Your task to perform on an android device: Clear the shopping cart on newegg. Add "usb-a to usb-b" to the cart on newegg, then select checkout. Image 0: 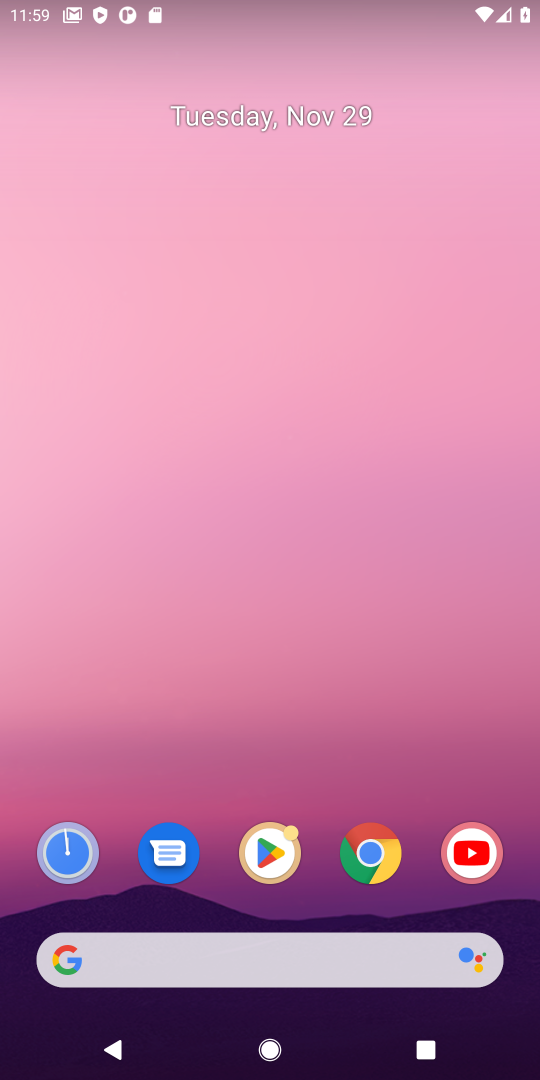
Step 0: click (377, 857)
Your task to perform on an android device: Clear the shopping cart on newegg. Add "usb-a to usb-b" to the cart on newegg, then select checkout. Image 1: 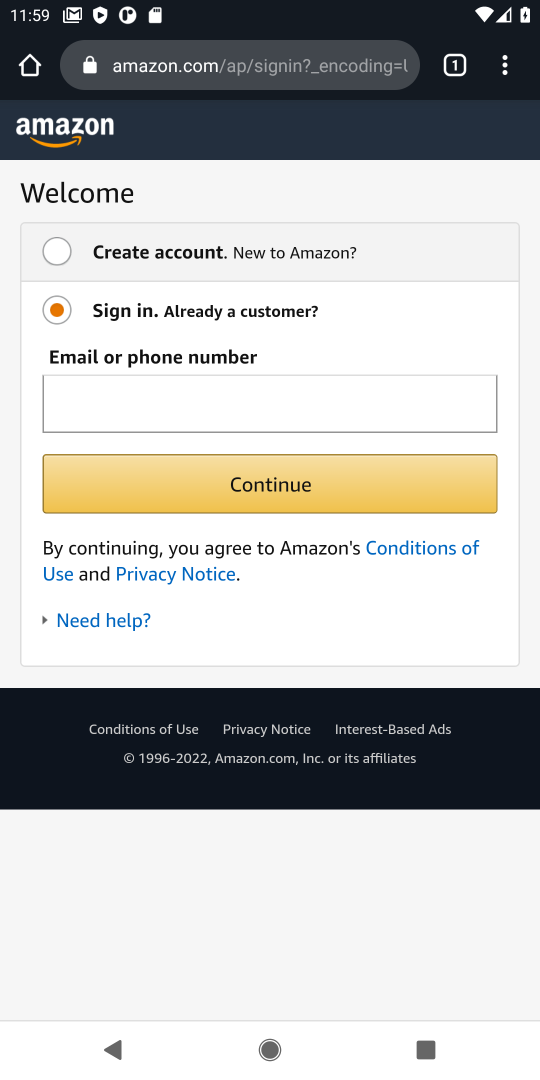
Step 1: click (237, 78)
Your task to perform on an android device: Clear the shopping cart on newegg. Add "usb-a to usb-b" to the cart on newegg, then select checkout. Image 2: 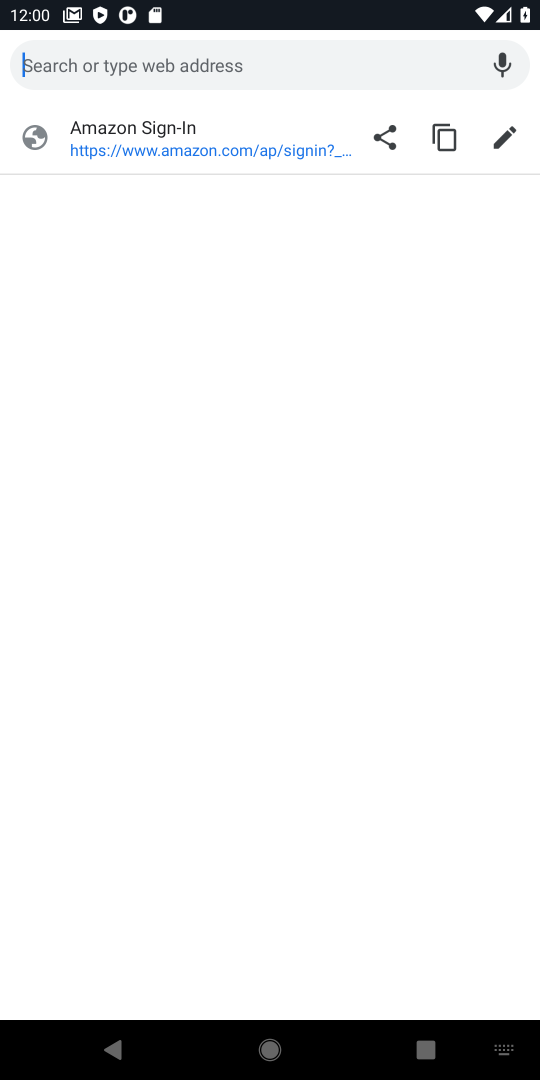
Step 2: click (116, 59)
Your task to perform on an android device: Clear the shopping cart on newegg. Add "usb-a to usb-b" to the cart on newegg, then select checkout. Image 3: 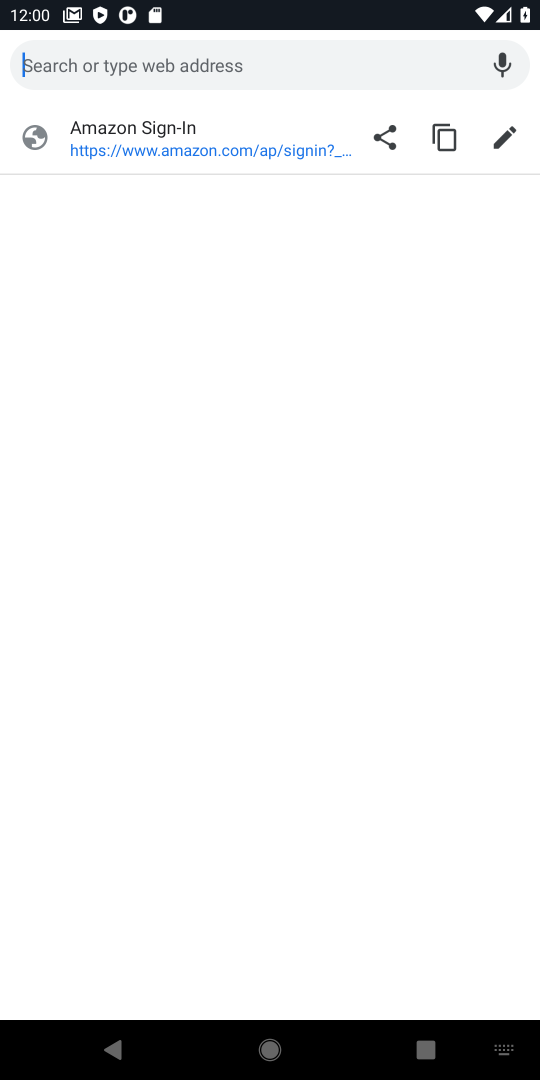
Step 3: click (145, 71)
Your task to perform on an android device: Clear the shopping cart on newegg. Add "usb-a to usb-b" to the cart on newegg, then select checkout. Image 4: 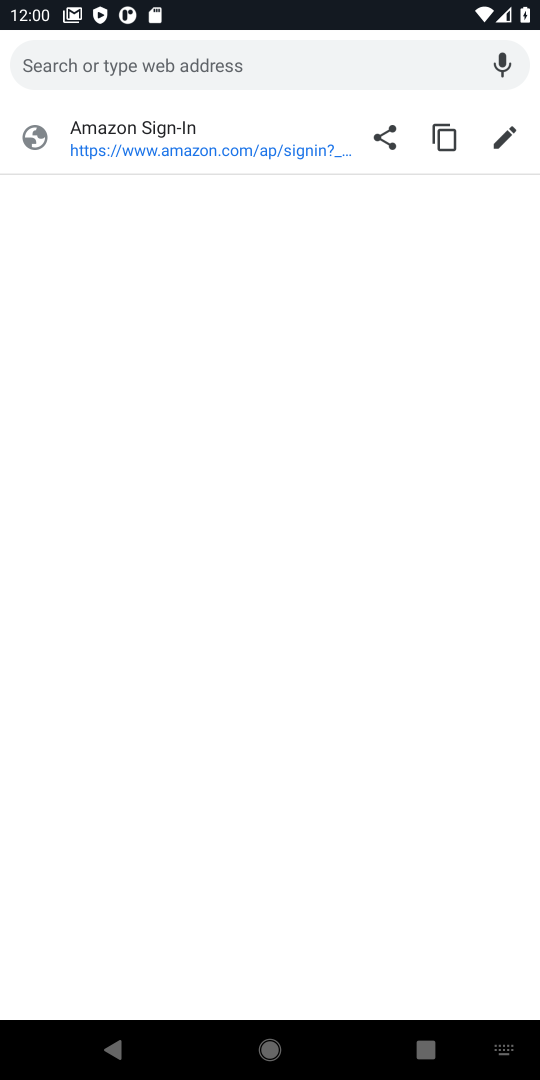
Step 4: type "newegg.com"
Your task to perform on an android device: Clear the shopping cart on newegg. Add "usb-a to usb-b" to the cart on newegg, then select checkout. Image 5: 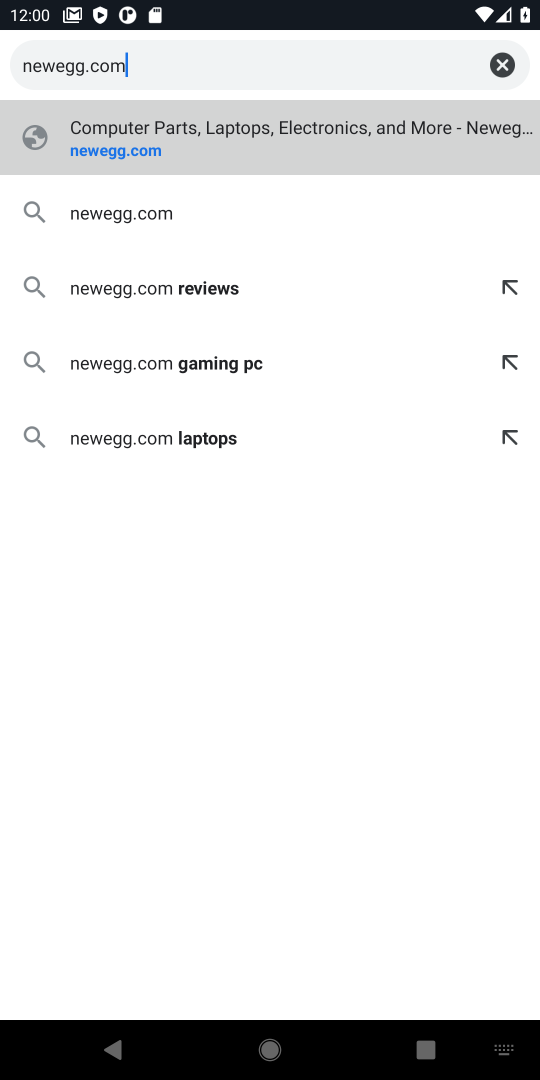
Step 5: click (102, 154)
Your task to perform on an android device: Clear the shopping cart on newegg. Add "usb-a to usb-b" to the cart on newegg, then select checkout. Image 6: 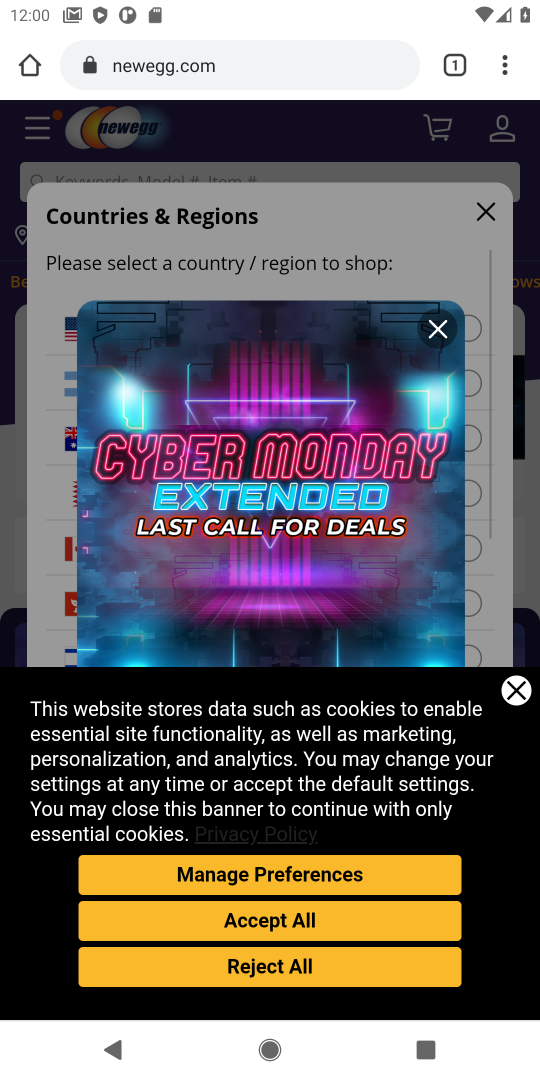
Step 6: click (515, 686)
Your task to perform on an android device: Clear the shopping cart on newegg. Add "usb-a to usb-b" to the cart on newegg, then select checkout. Image 7: 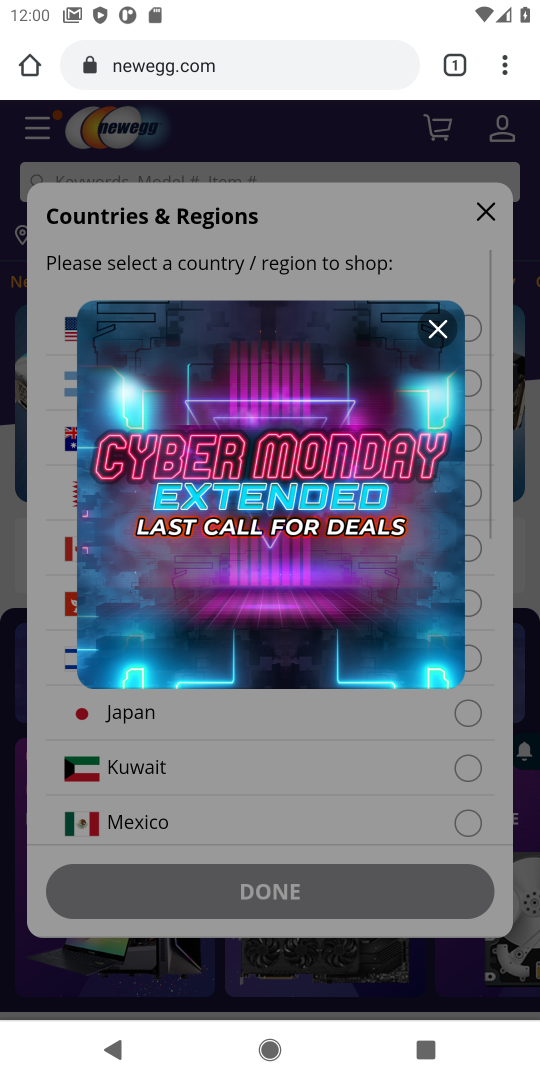
Step 7: click (441, 330)
Your task to perform on an android device: Clear the shopping cart on newegg. Add "usb-a to usb-b" to the cart on newegg, then select checkout. Image 8: 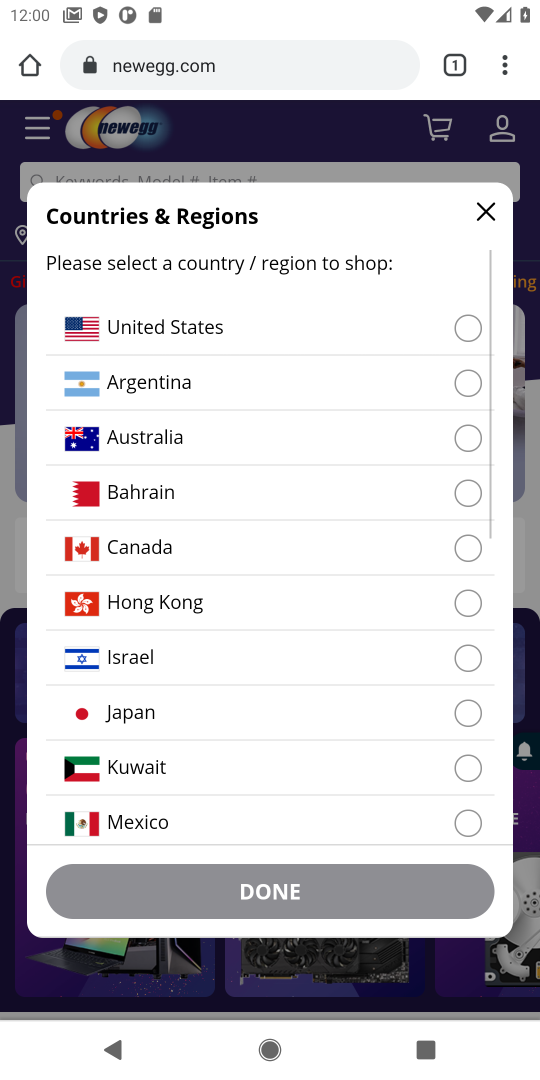
Step 8: click (205, 335)
Your task to perform on an android device: Clear the shopping cart on newegg. Add "usb-a to usb-b" to the cart on newegg, then select checkout. Image 9: 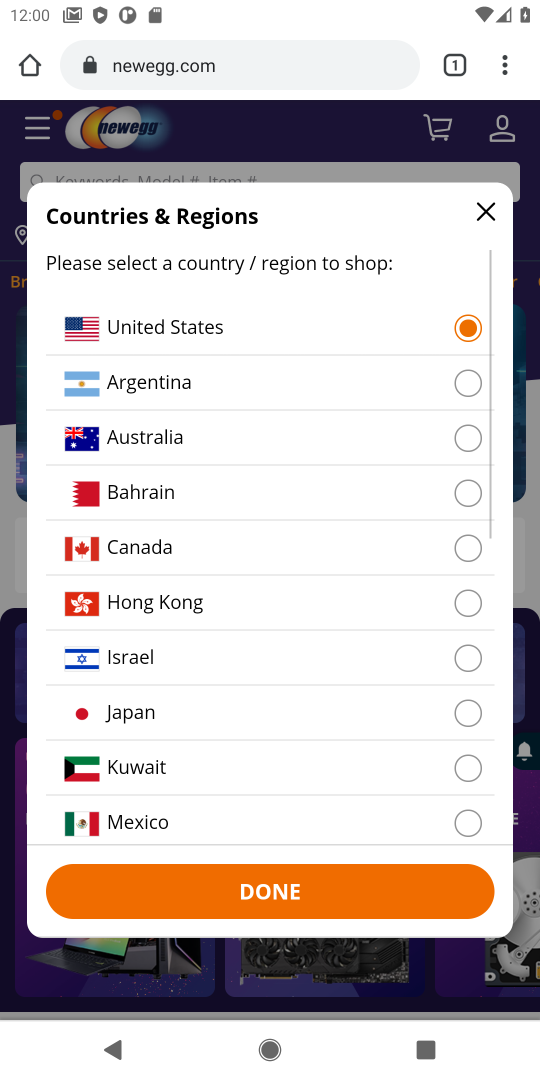
Step 9: click (254, 882)
Your task to perform on an android device: Clear the shopping cart on newegg. Add "usb-a to usb-b" to the cart on newegg, then select checkout. Image 10: 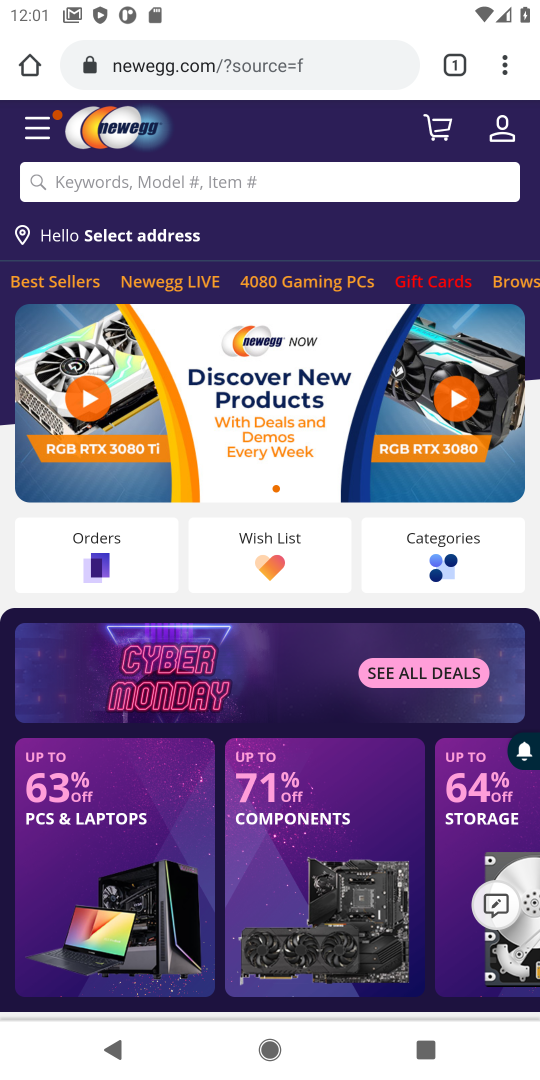
Step 10: click (441, 128)
Your task to perform on an android device: Clear the shopping cart on newegg. Add "usb-a to usb-b" to the cart on newegg, then select checkout. Image 11: 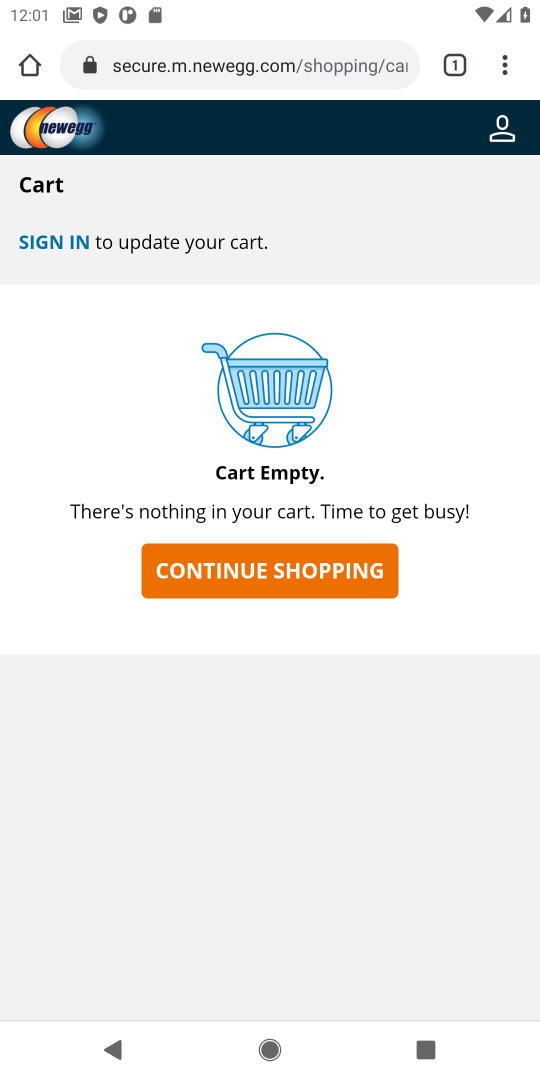
Step 11: click (227, 574)
Your task to perform on an android device: Clear the shopping cart on newegg. Add "usb-a to usb-b" to the cart on newegg, then select checkout. Image 12: 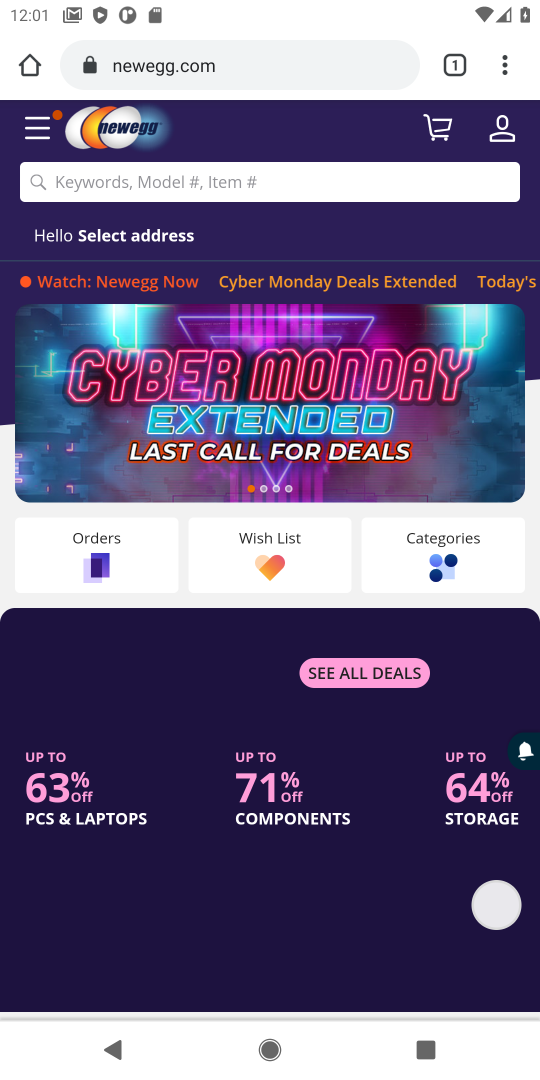
Step 12: click (173, 181)
Your task to perform on an android device: Clear the shopping cart on newegg. Add "usb-a to usb-b" to the cart on newegg, then select checkout. Image 13: 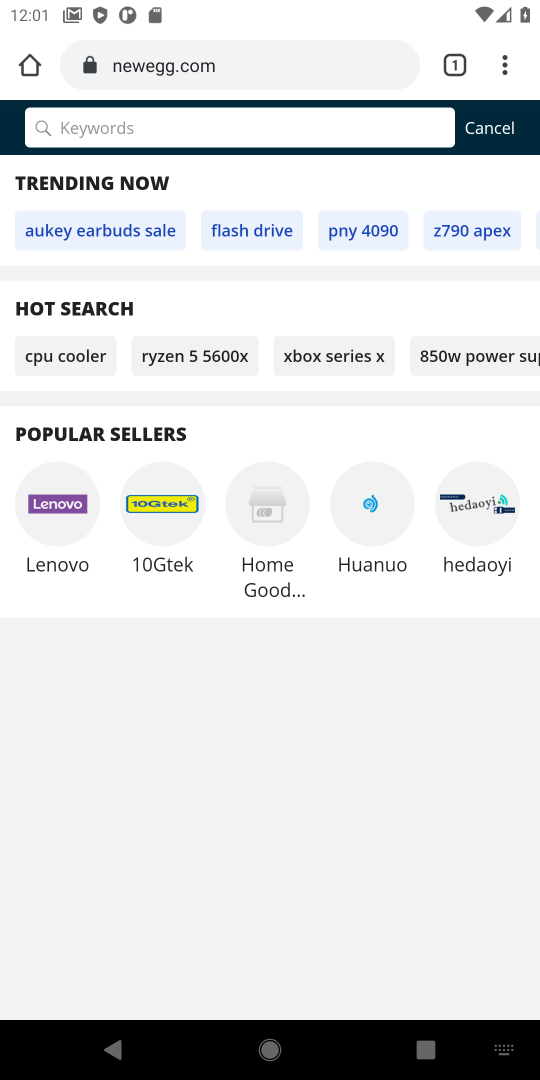
Step 13: type "usb-a to usb-b"
Your task to perform on an android device: Clear the shopping cart on newegg. Add "usb-a to usb-b" to the cart on newegg, then select checkout. Image 14: 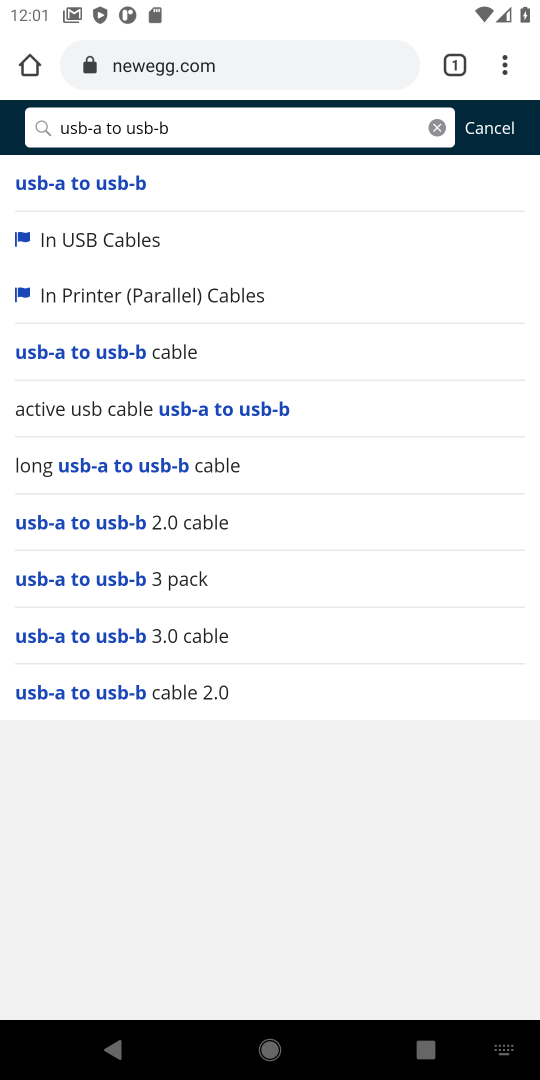
Step 14: click (71, 187)
Your task to perform on an android device: Clear the shopping cart on newegg. Add "usb-a to usb-b" to the cart on newegg, then select checkout. Image 15: 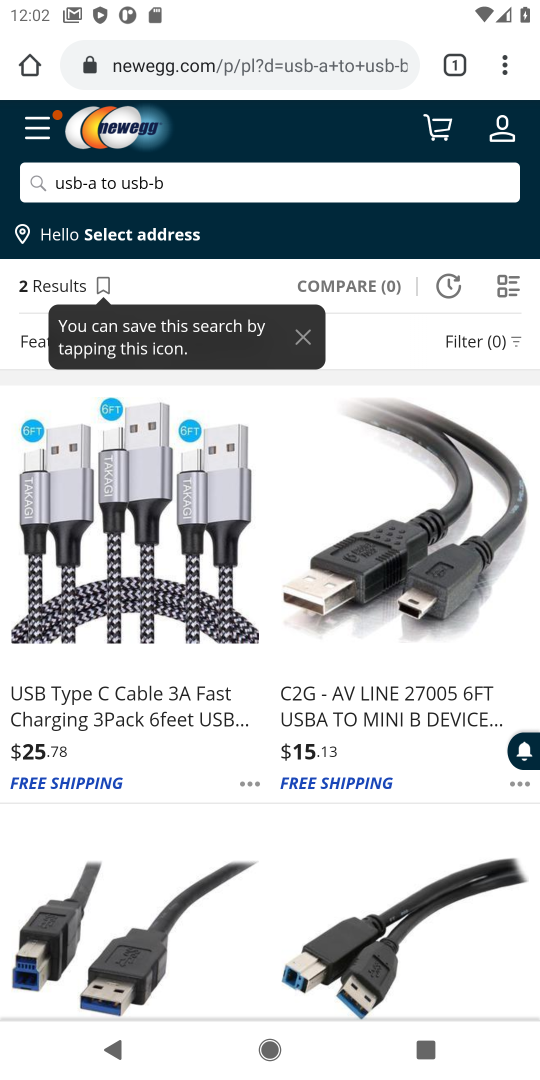
Step 15: drag from (164, 730) to (140, 524)
Your task to perform on an android device: Clear the shopping cart on newegg. Add "usb-a to usb-b" to the cart on newegg, then select checkout. Image 16: 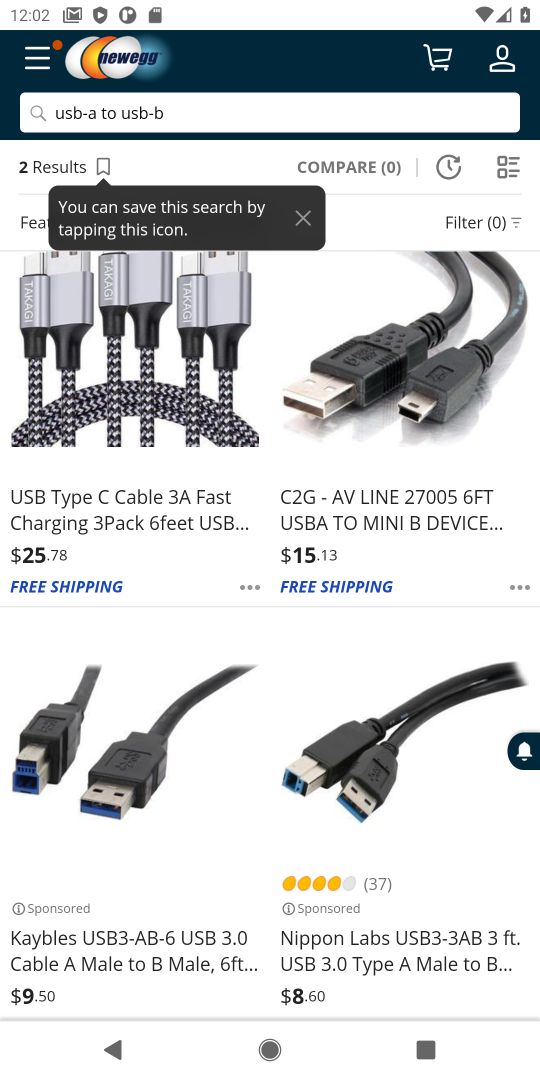
Step 16: drag from (111, 804) to (120, 536)
Your task to perform on an android device: Clear the shopping cart on newegg. Add "usb-a to usb-b" to the cart on newegg, then select checkout. Image 17: 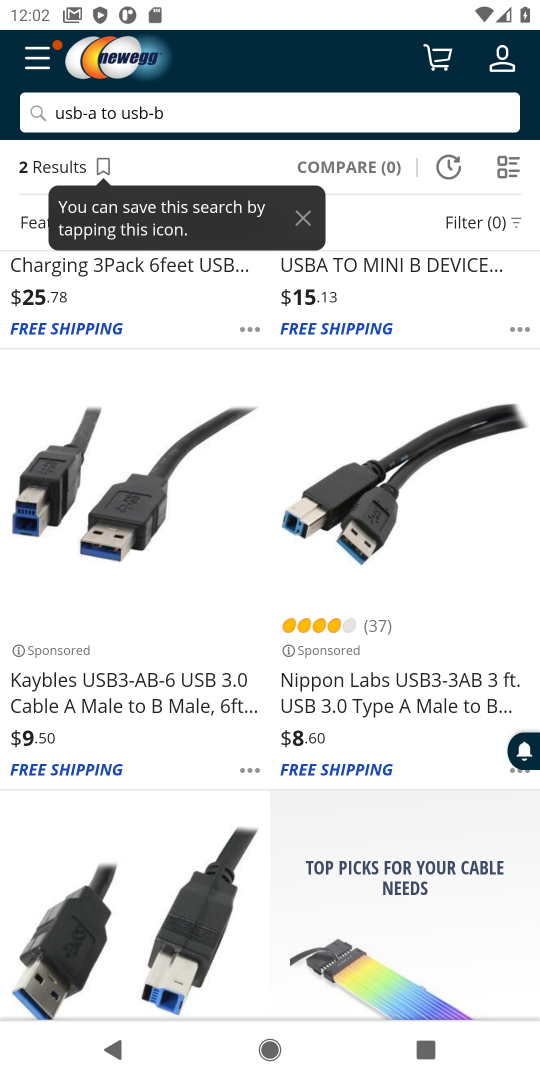
Step 17: click (89, 689)
Your task to perform on an android device: Clear the shopping cart on newegg. Add "usb-a to usb-b" to the cart on newegg, then select checkout. Image 18: 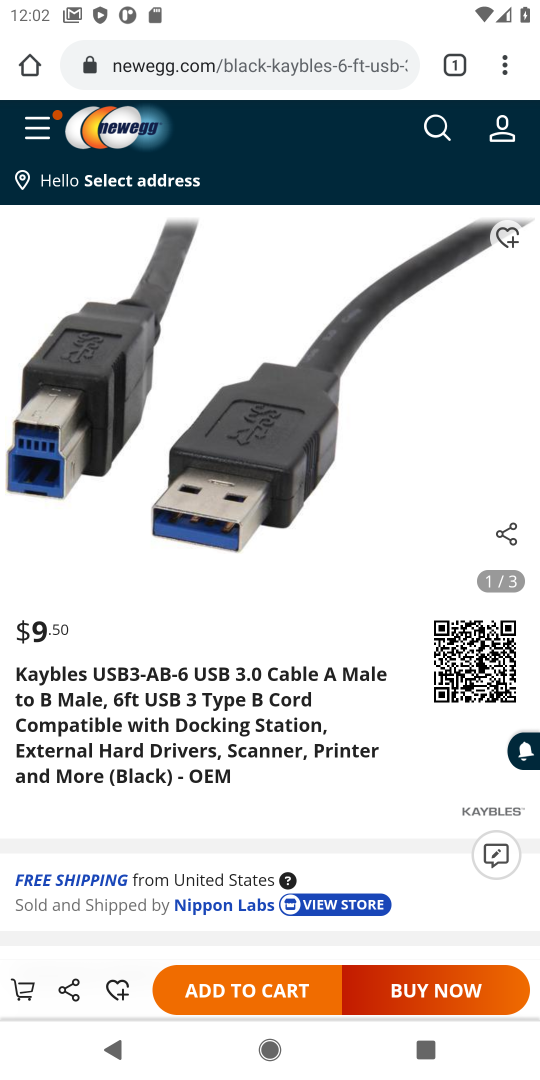
Step 18: click (220, 1000)
Your task to perform on an android device: Clear the shopping cart on newegg. Add "usb-a to usb-b" to the cart on newegg, then select checkout. Image 19: 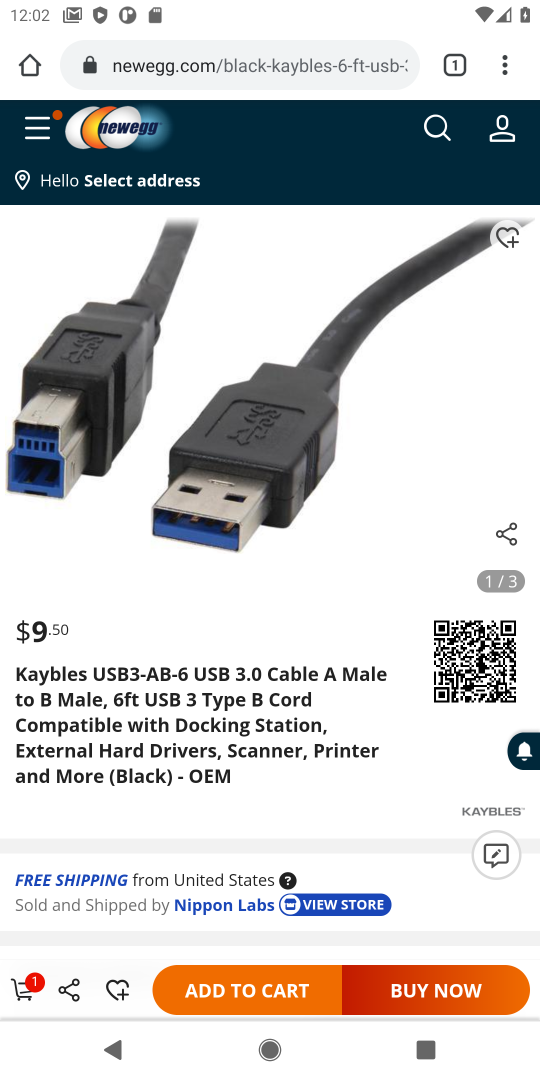
Step 19: click (30, 991)
Your task to perform on an android device: Clear the shopping cart on newegg. Add "usb-a to usb-b" to the cart on newegg, then select checkout. Image 20: 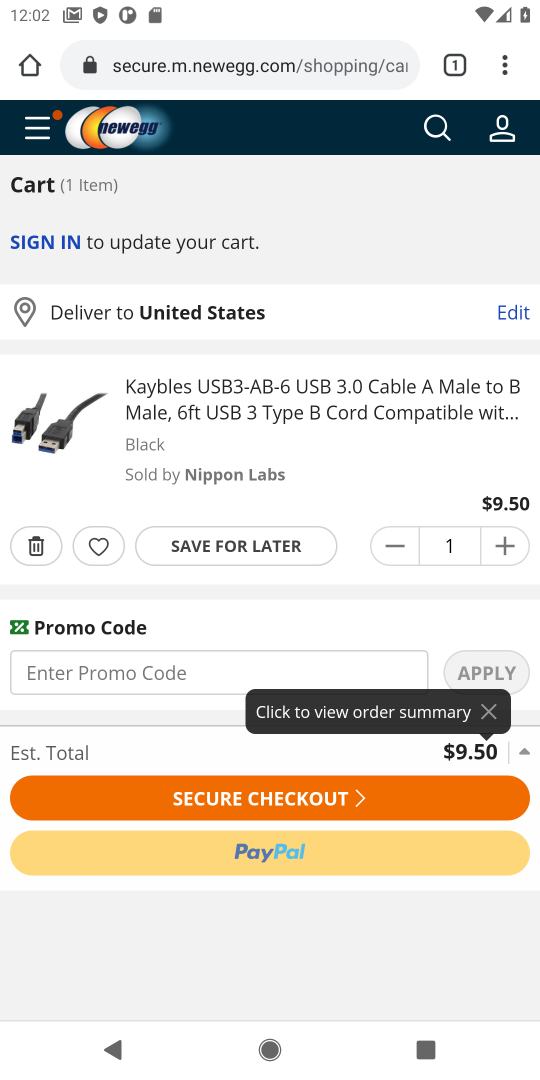
Step 20: click (260, 806)
Your task to perform on an android device: Clear the shopping cart on newegg. Add "usb-a to usb-b" to the cart on newegg, then select checkout. Image 21: 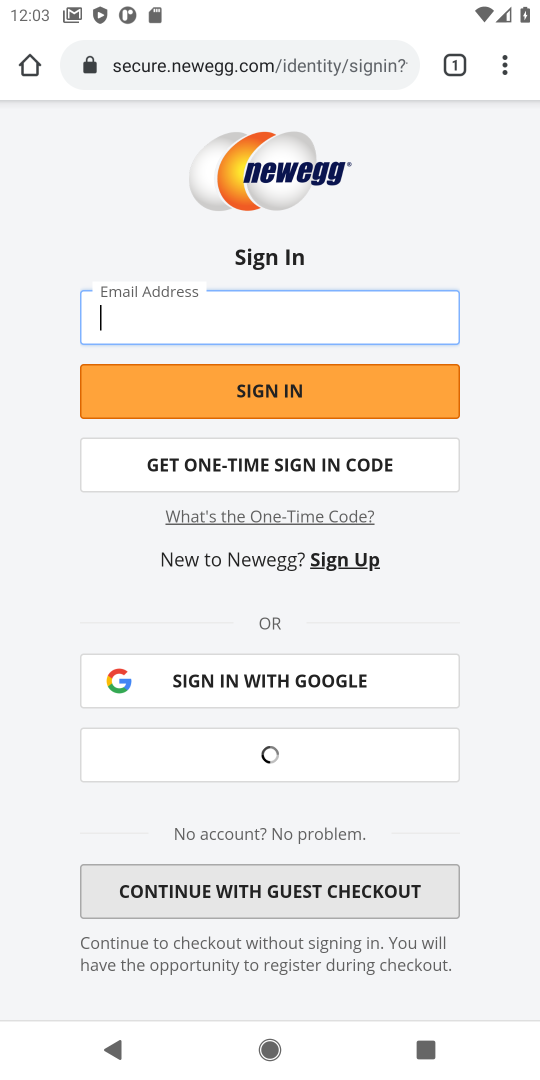
Step 21: task complete